Your task to perform on an android device: create a new album in the google photos Image 0: 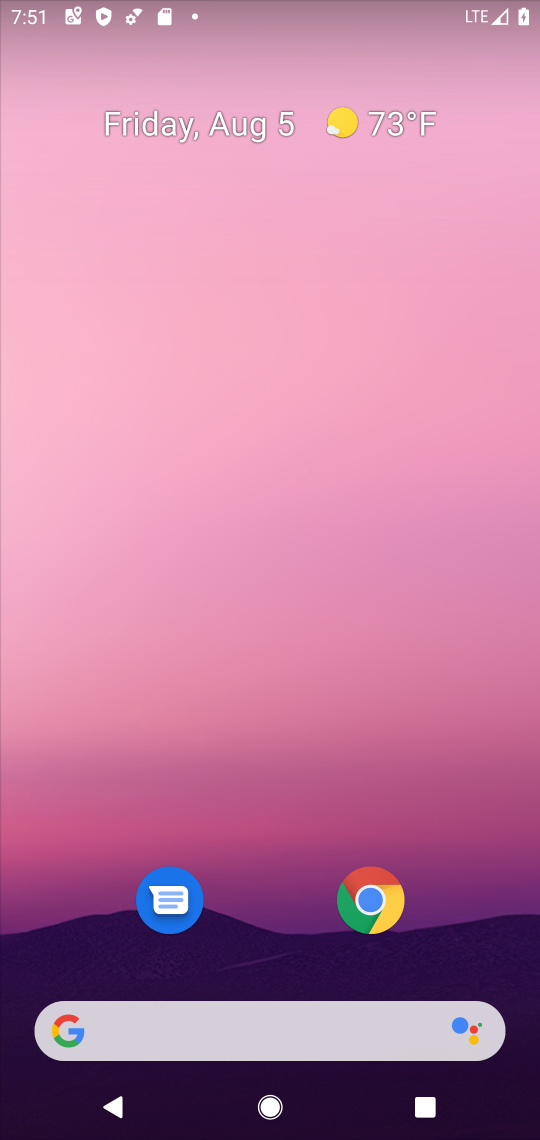
Step 0: drag from (204, 985) to (271, 413)
Your task to perform on an android device: create a new album in the google photos Image 1: 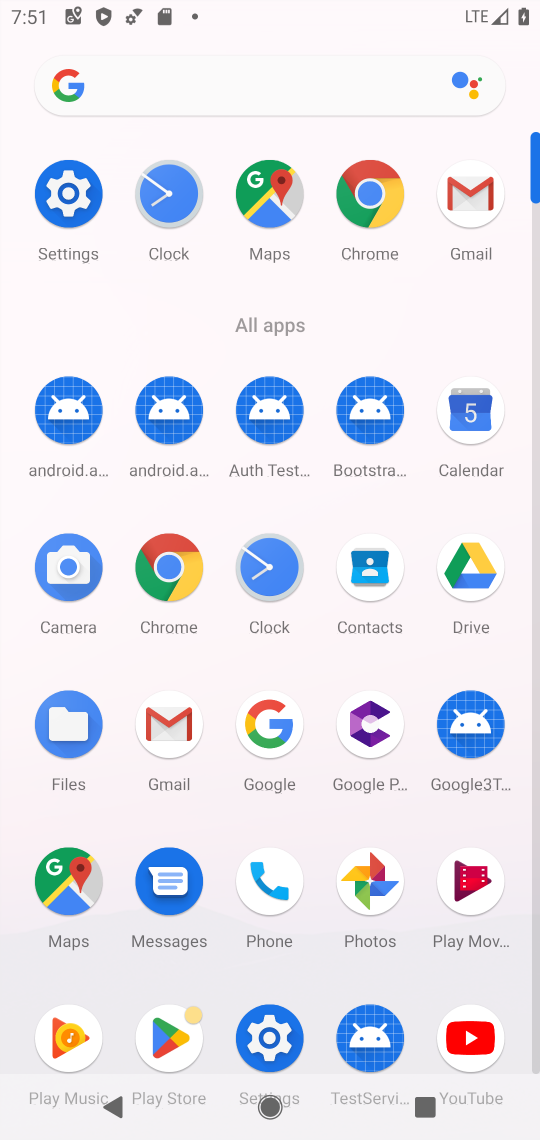
Step 1: click (371, 878)
Your task to perform on an android device: create a new album in the google photos Image 2: 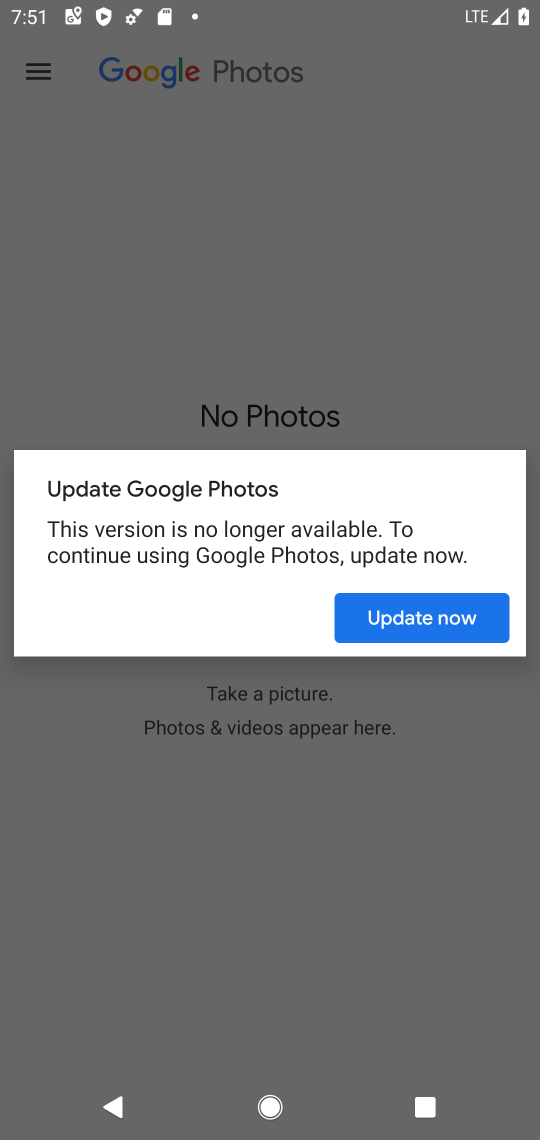
Step 2: task complete